Your task to perform on an android device: Open Yahoo.com Image 0: 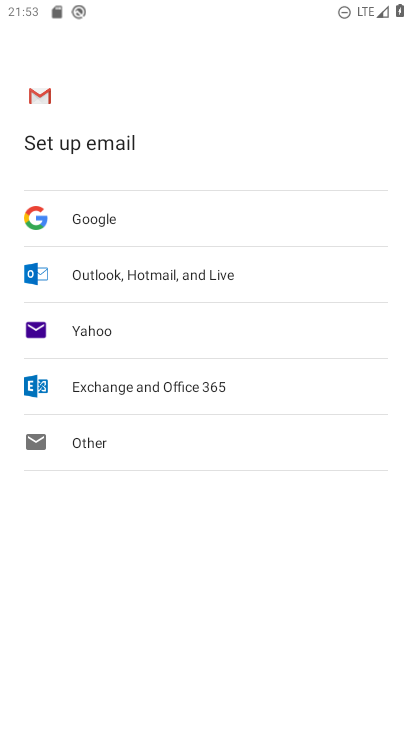
Step 0: press home button
Your task to perform on an android device: Open Yahoo.com Image 1: 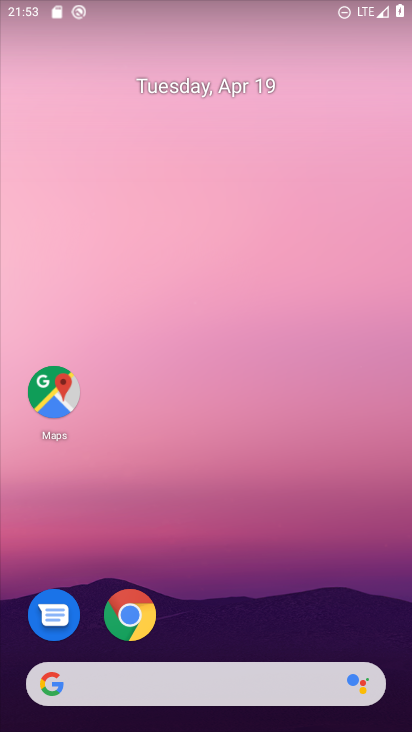
Step 1: click (125, 616)
Your task to perform on an android device: Open Yahoo.com Image 2: 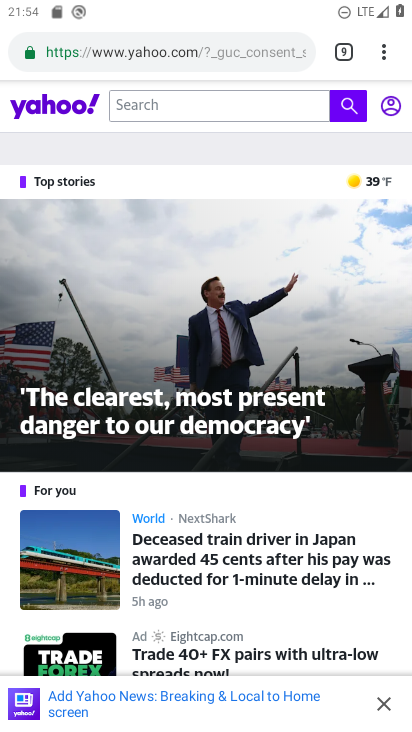
Step 2: task complete